Your task to perform on an android device: open chrome privacy settings Image 0: 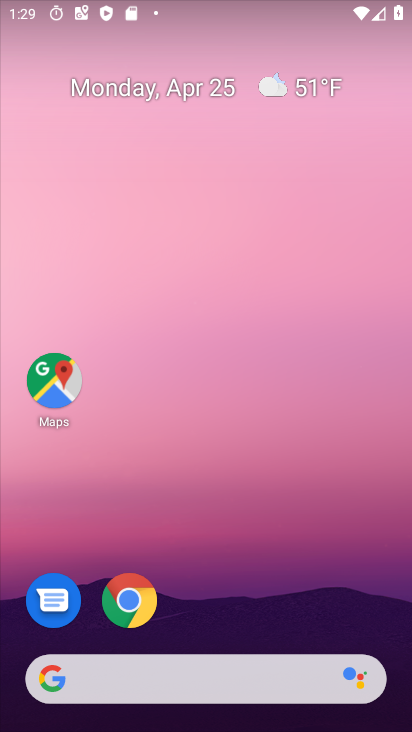
Step 0: drag from (160, 692) to (243, 188)
Your task to perform on an android device: open chrome privacy settings Image 1: 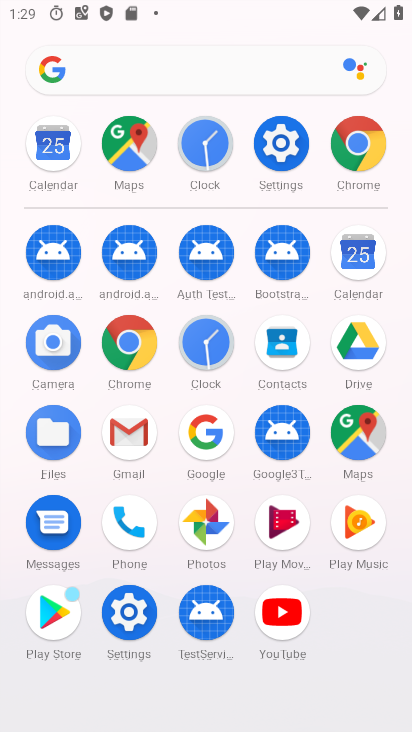
Step 1: click (359, 153)
Your task to perform on an android device: open chrome privacy settings Image 2: 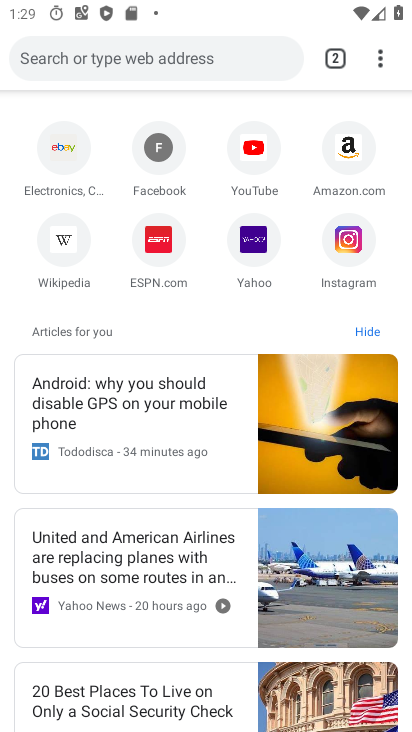
Step 2: drag from (379, 61) to (168, 497)
Your task to perform on an android device: open chrome privacy settings Image 3: 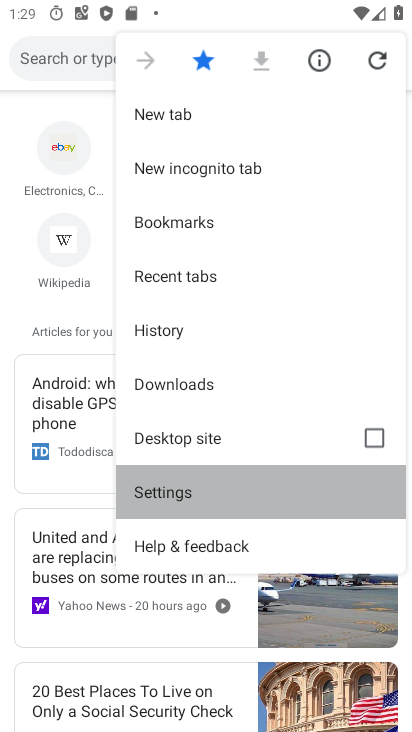
Step 3: click (168, 497)
Your task to perform on an android device: open chrome privacy settings Image 4: 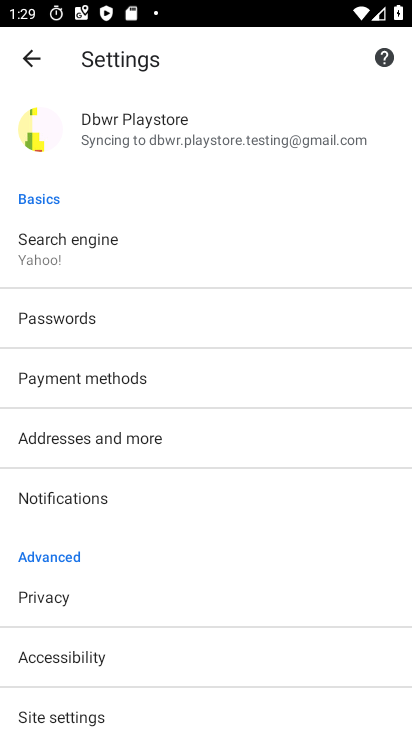
Step 4: click (57, 596)
Your task to perform on an android device: open chrome privacy settings Image 5: 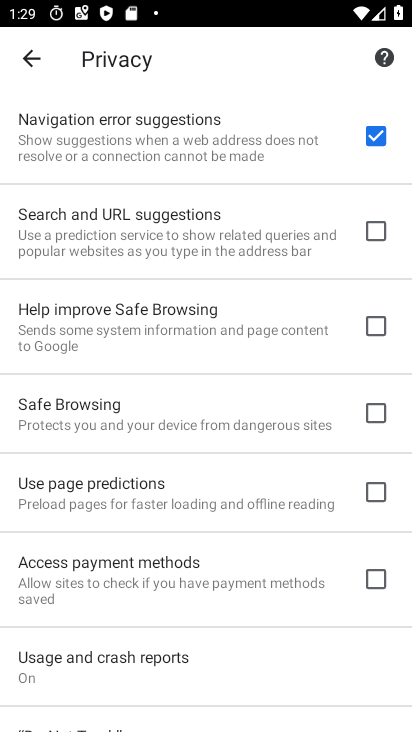
Step 5: task complete